Your task to perform on an android device: Go to eBay Image 0: 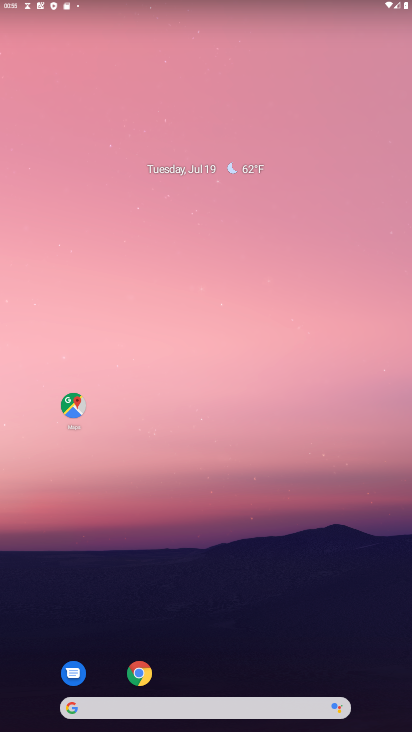
Step 0: drag from (266, 611) to (259, 406)
Your task to perform on an android device: Go to eBay Image 1: 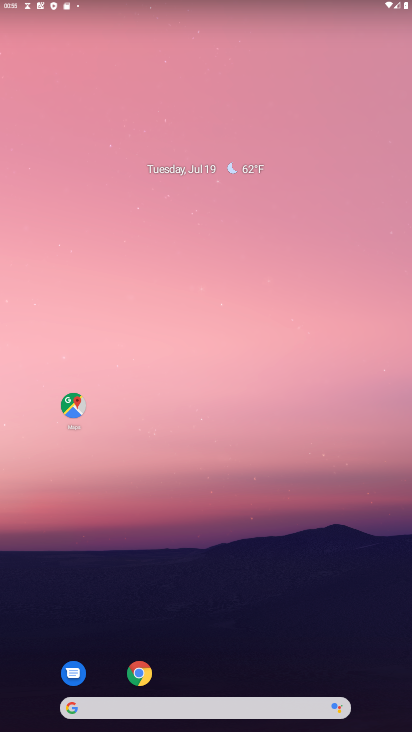
Step 1: click (132, 690)
Your task to perform on an android device: Go to eBay Image 2: 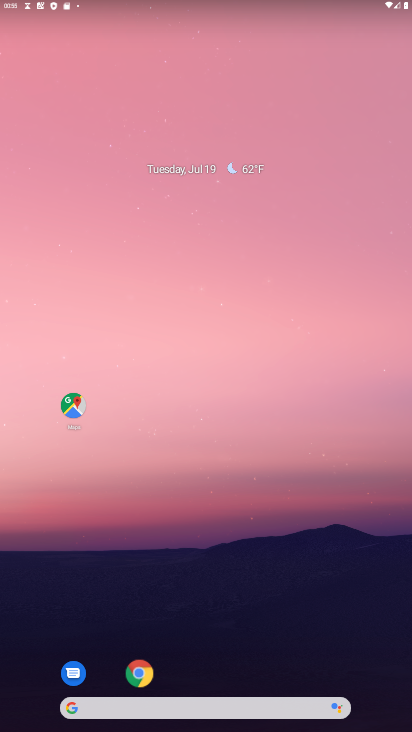
Step 2: click (149, 673)
Your task to perform on an android device: Go to eBay Image 3: 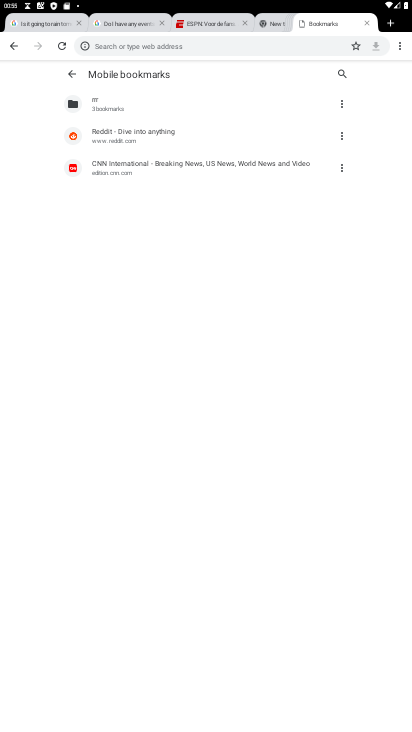
Step 3: click (388, 19)
Your task to perform on an android device: Go to eBay Image 4: 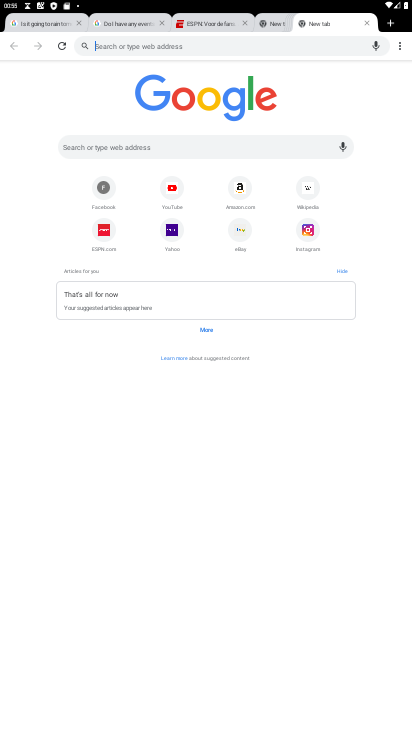
Step 4: click (240, 224)
Your task to perform on an android device: Go to eBay Image 5: 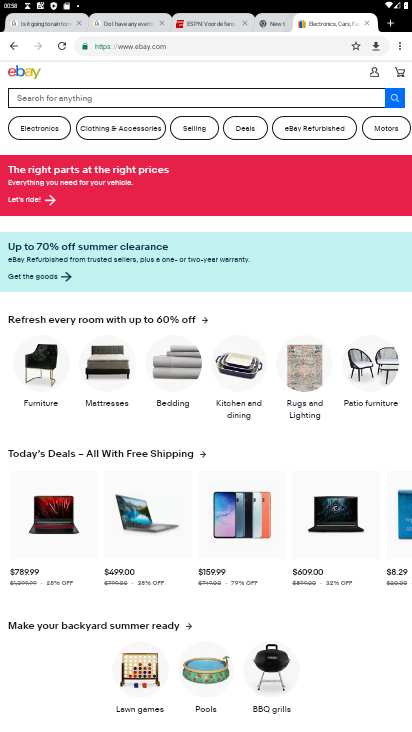
Step 5: task complete